Your task to perform on an android device: Open Google Image 0: 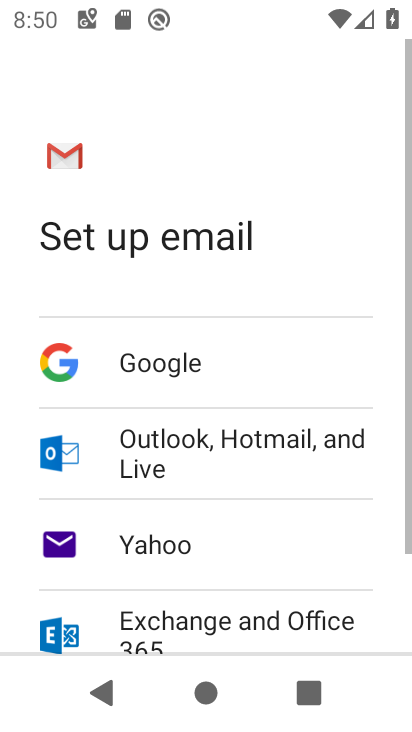
Step 0: press home button
Your task to perform on an android device: Open Google Image 1: 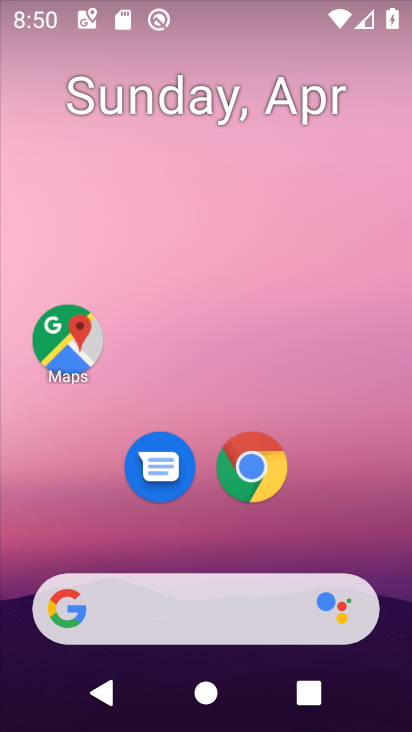
Step 1: drag from (282, 537) to (298, 10)
Your task to perform on an android device: Open Google Image 2: 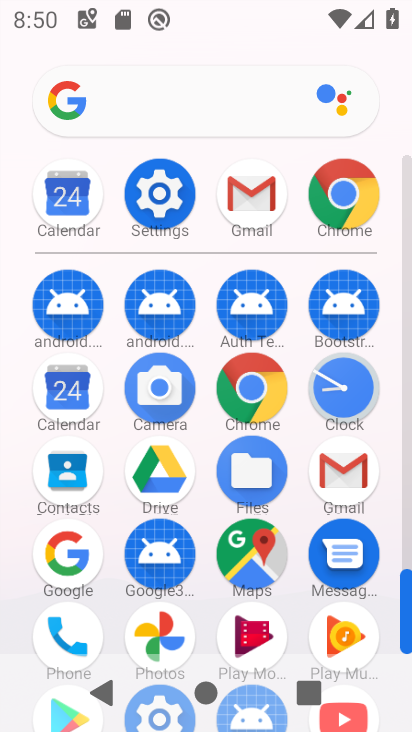
Step 2: click (75, 547)
Your task to perform on an android device: Open Google Image 3: 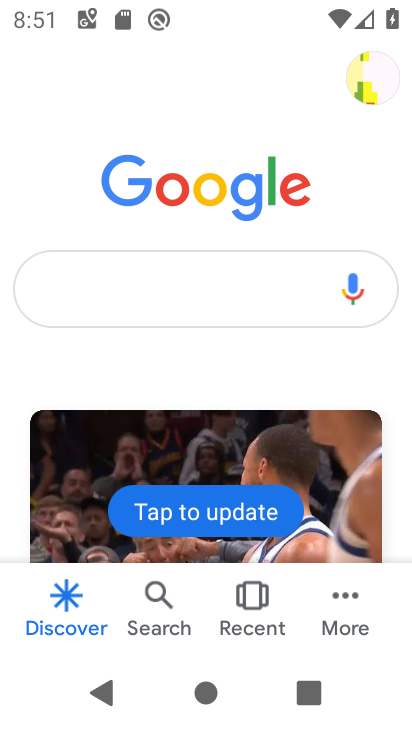
Step 3: task complete